Your task to perform on an android device: Toggle the flashlight Image 0: 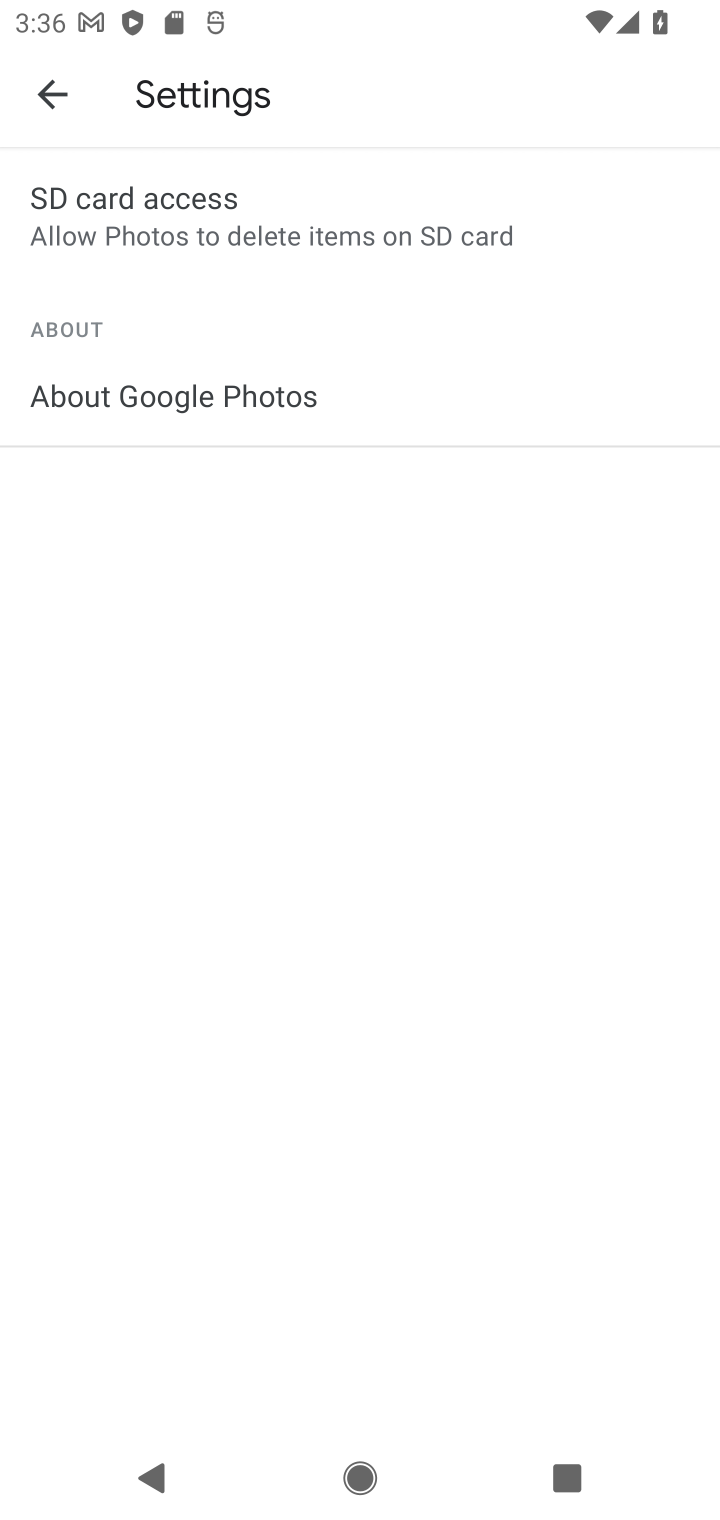
Step 0: press home button
Your task to perform on an android device: Toggle the flashlight Image 1: 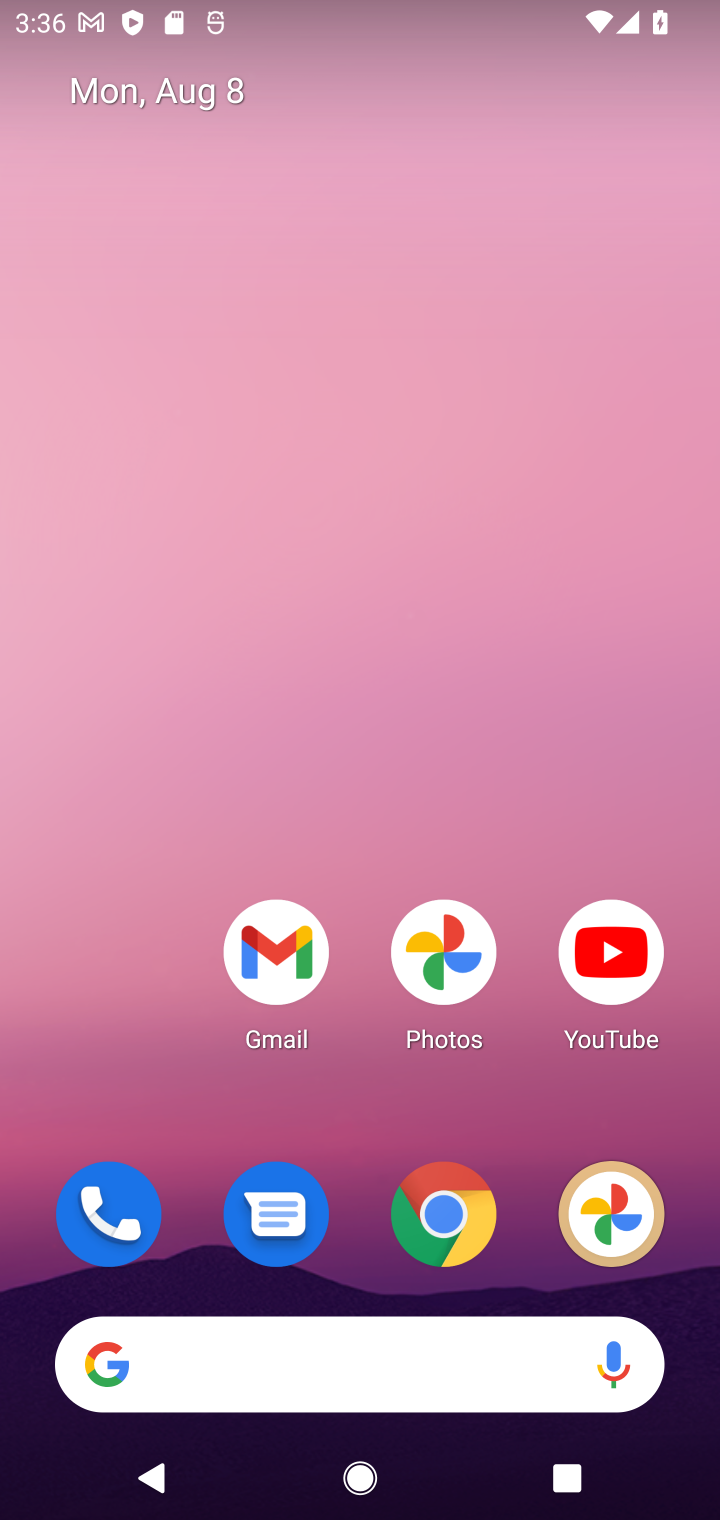
Step 1: drag from (379, 1273) to (490, 48)
Your task to perform on an android device: Toggle the flashlight Image 2: 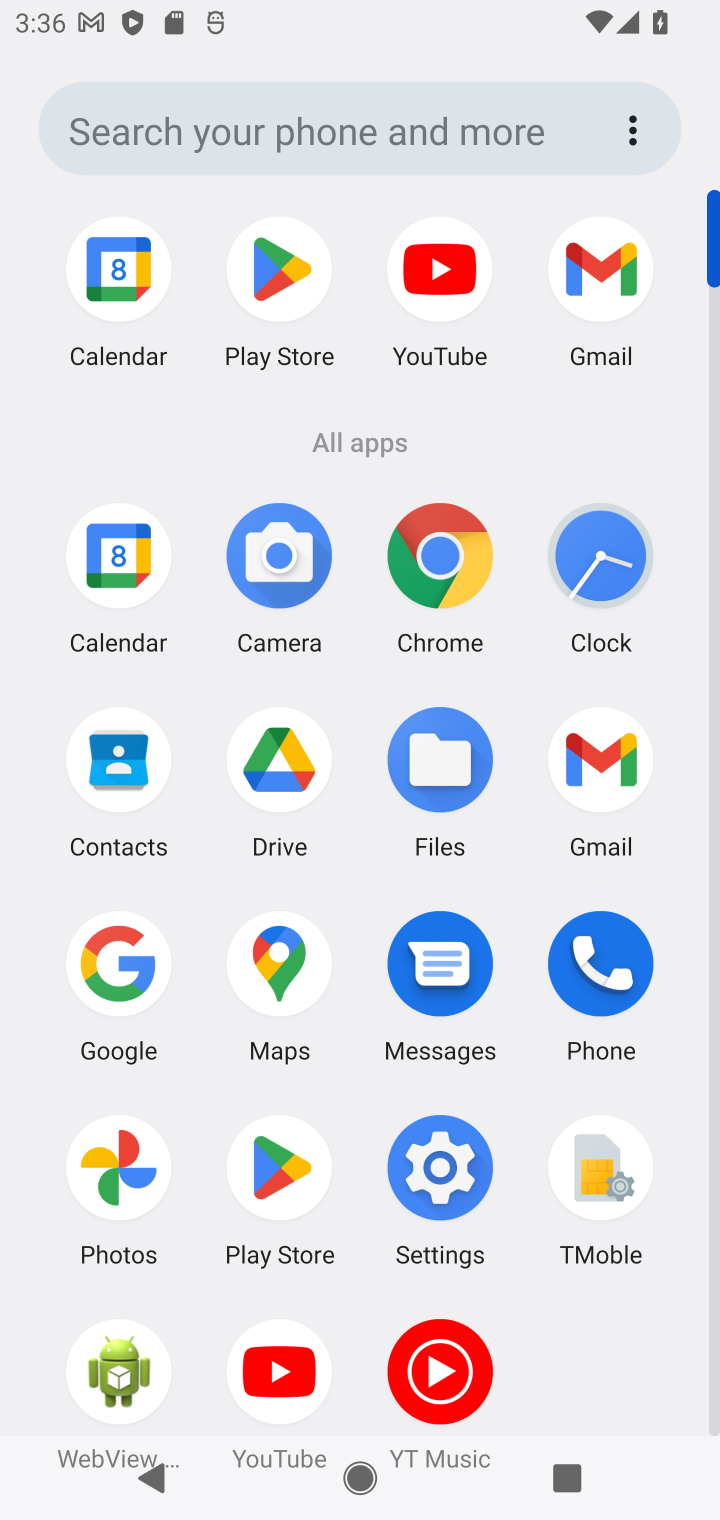
Step 2: click (436, 1154)
Your task to perform on an android device: Toggle the flashlight Image 3: 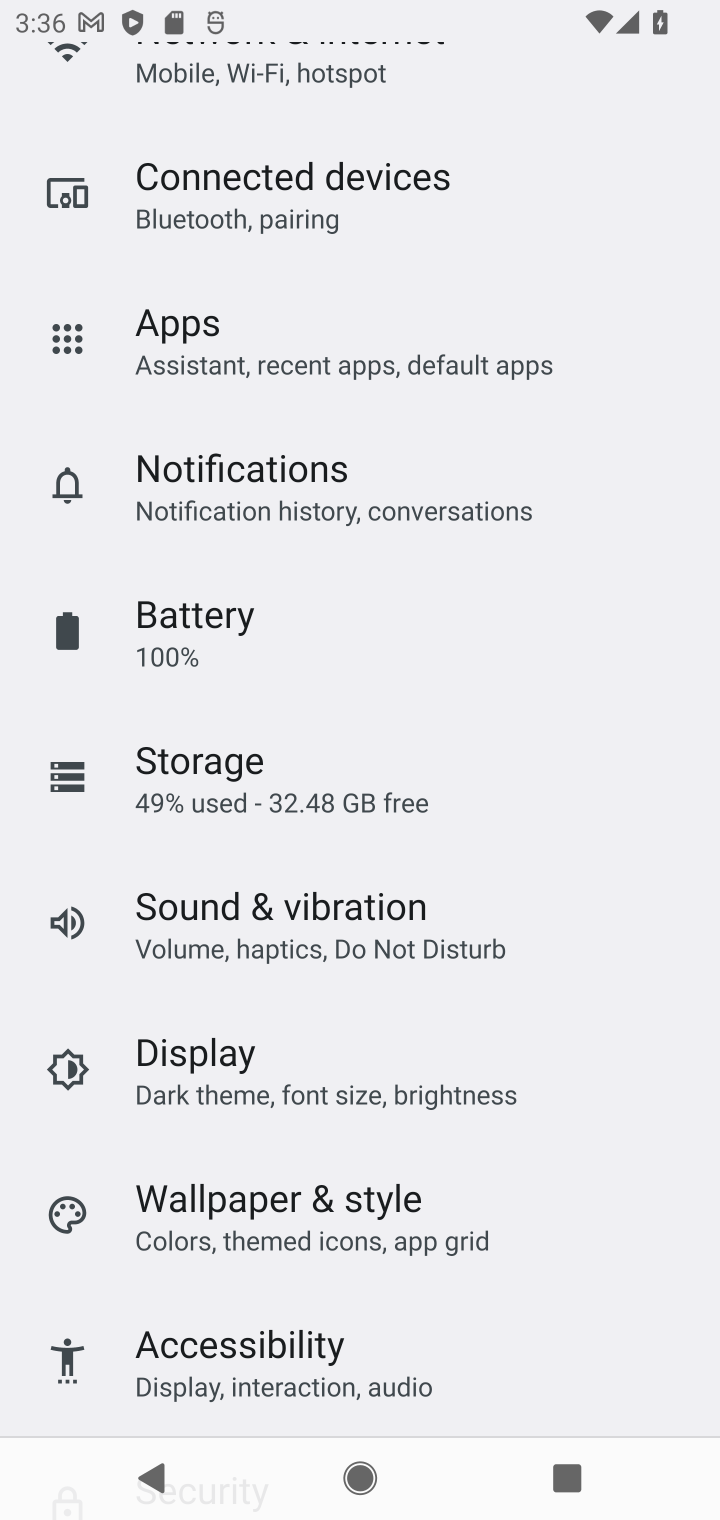
Step 3: drag from (246, 1271) to (240, 935)
Your task to perform on an android device: Toggle the flashlight Image 4: 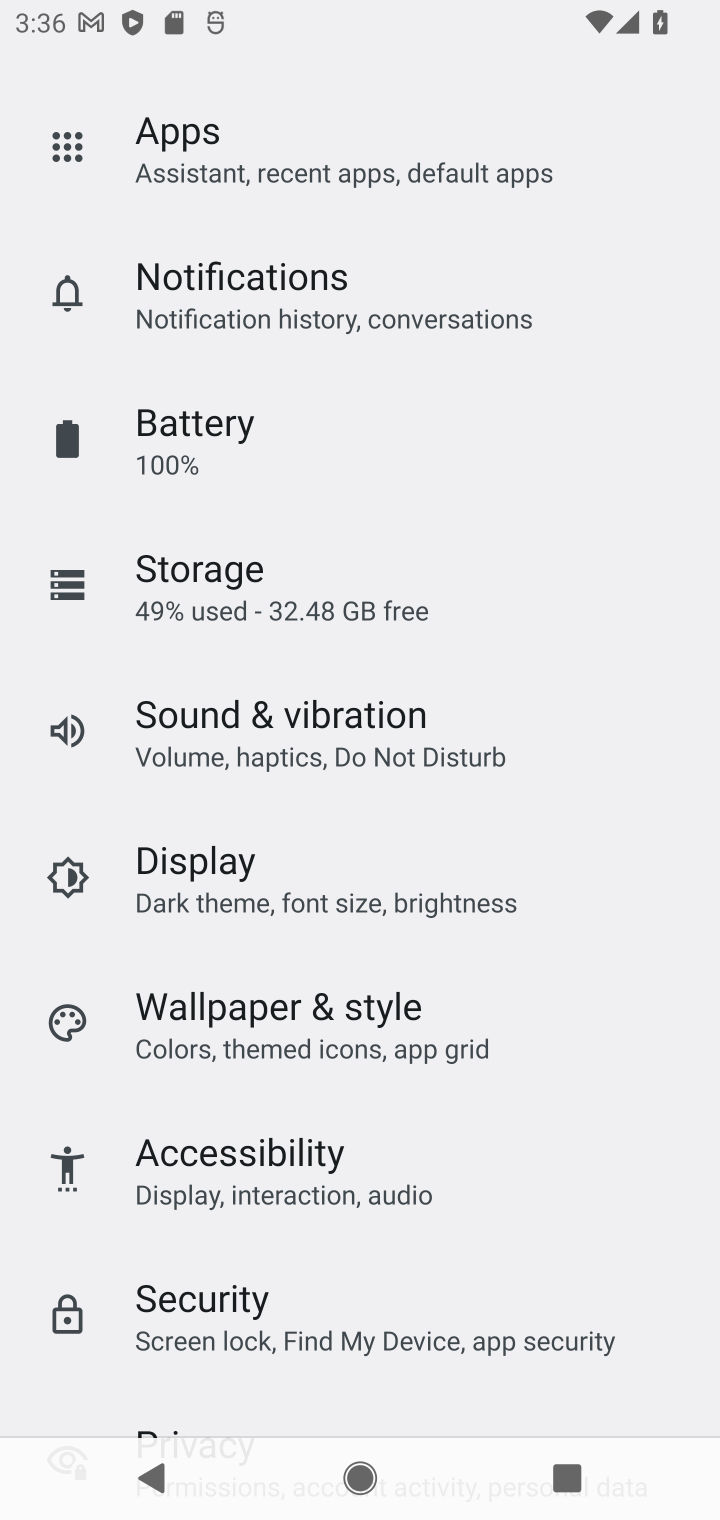
Step 4: drag from (351, 1284) to (372, 682)
Your task to perform on an android device: Toggle the flashlight Image 5: 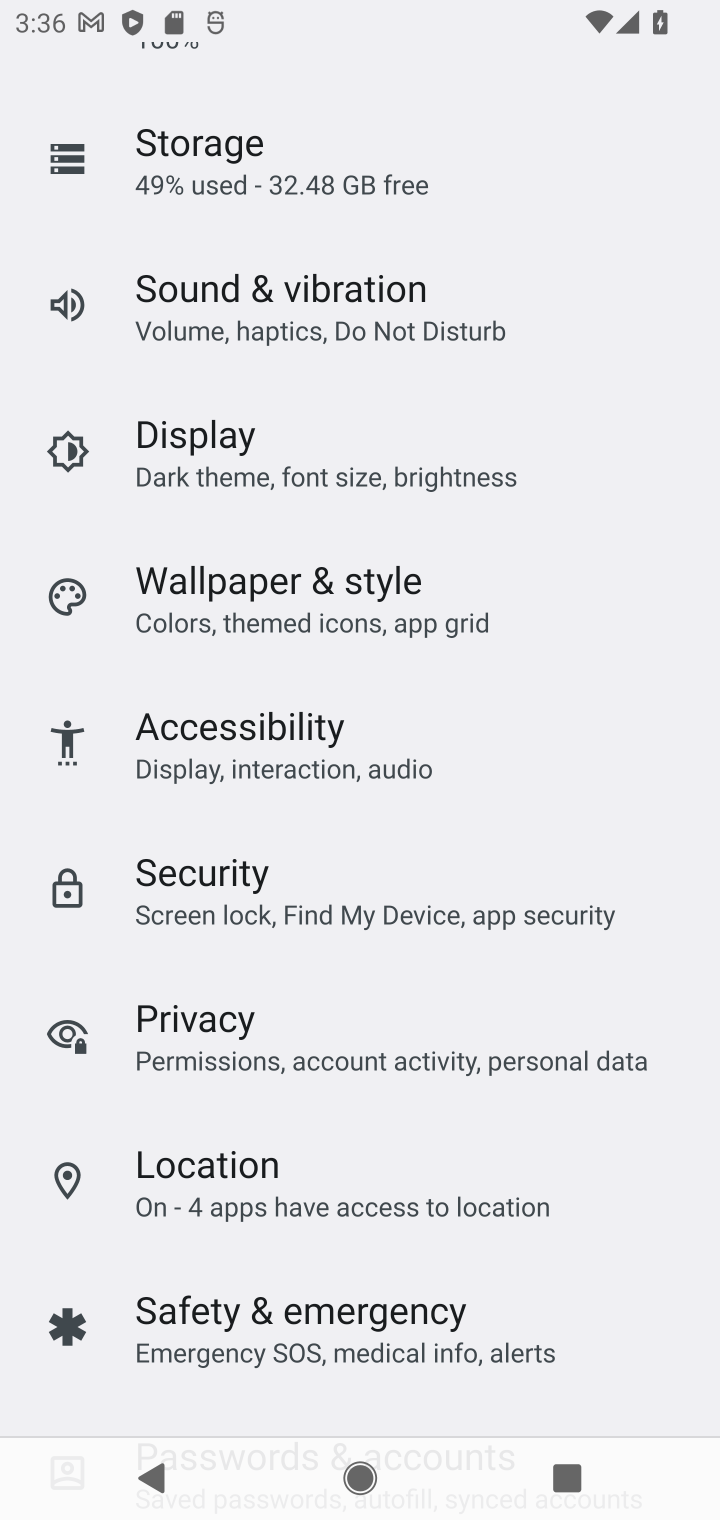
Step 5: drag from (356, 1315) to (342, 789)
Your task to perform on an android device: Toggle the flashlight Image 6: 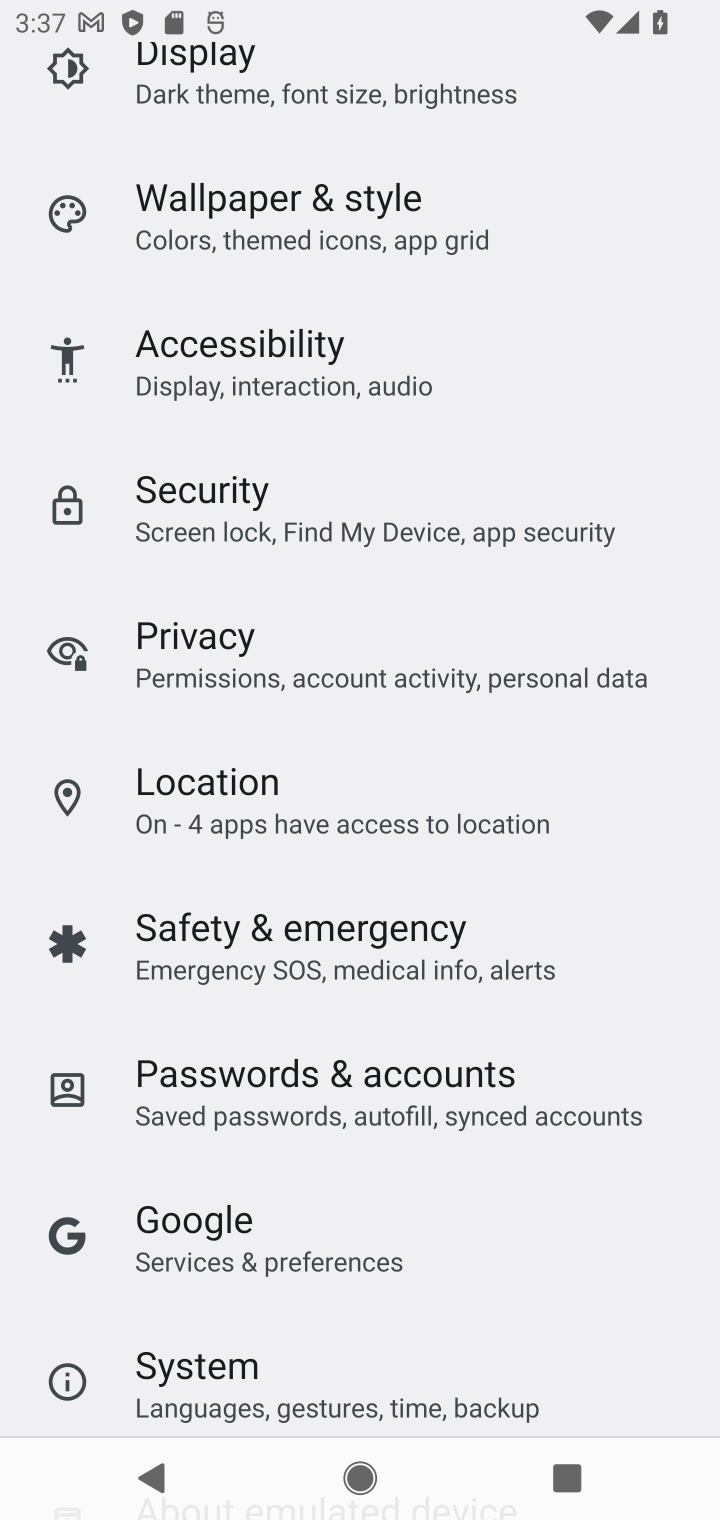
Step 6: drag from (277, 1265) to (277, 354)
Your task to perform on an android device: Toggle the flashlight Image 7: 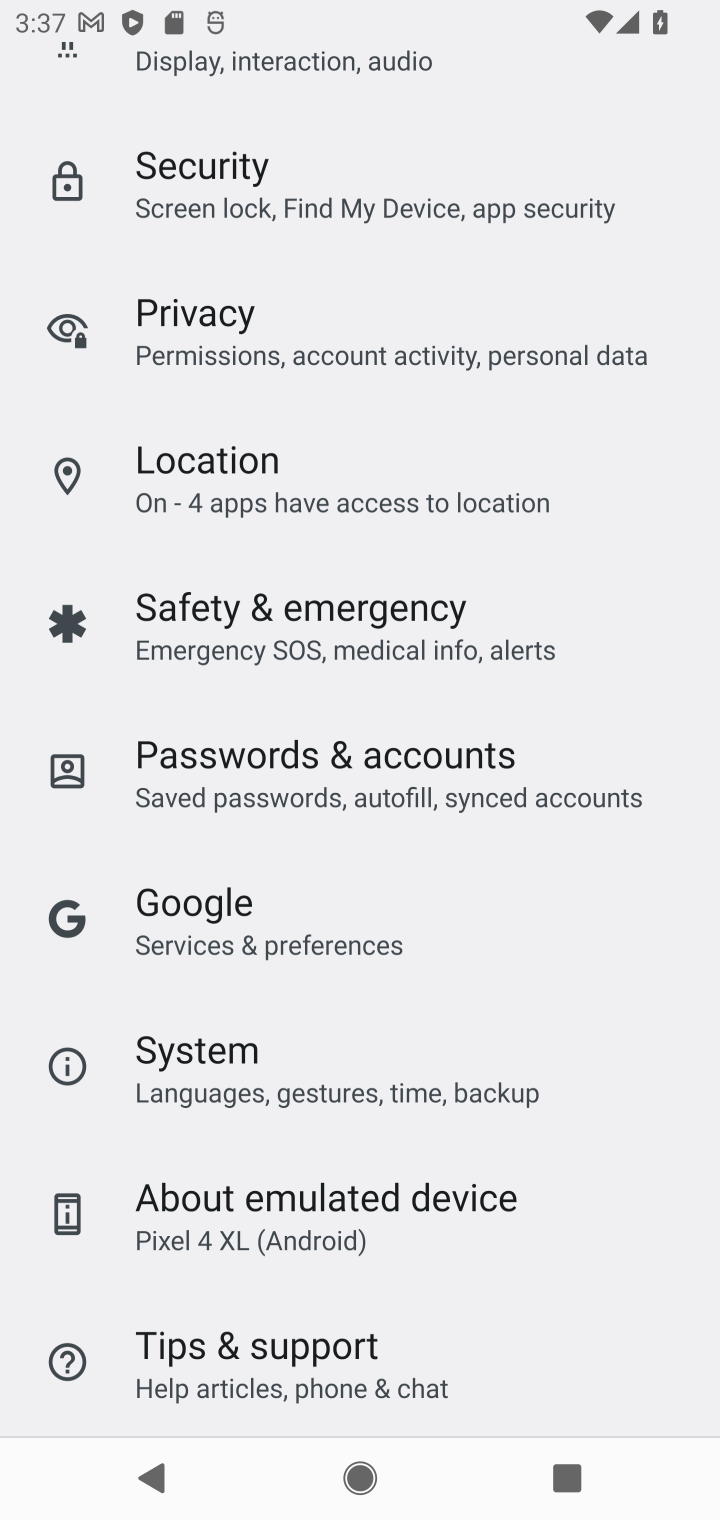
Step 7: click (204, 573)
Your task to perform on an android device: Toggle the flashlight Image 8: 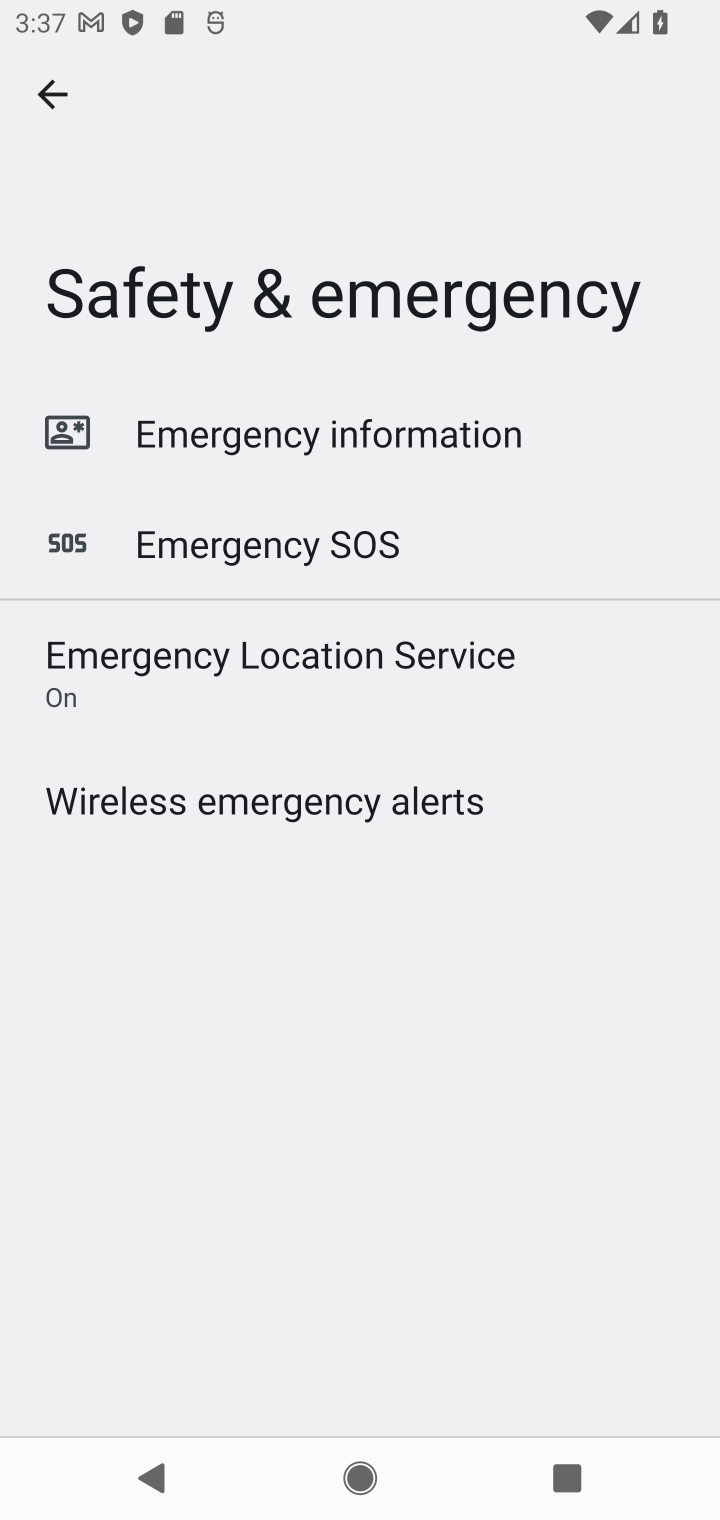
Step 8: click (52, 99)
Your task to perform on an android device: Toggle the flashlight Image 9: 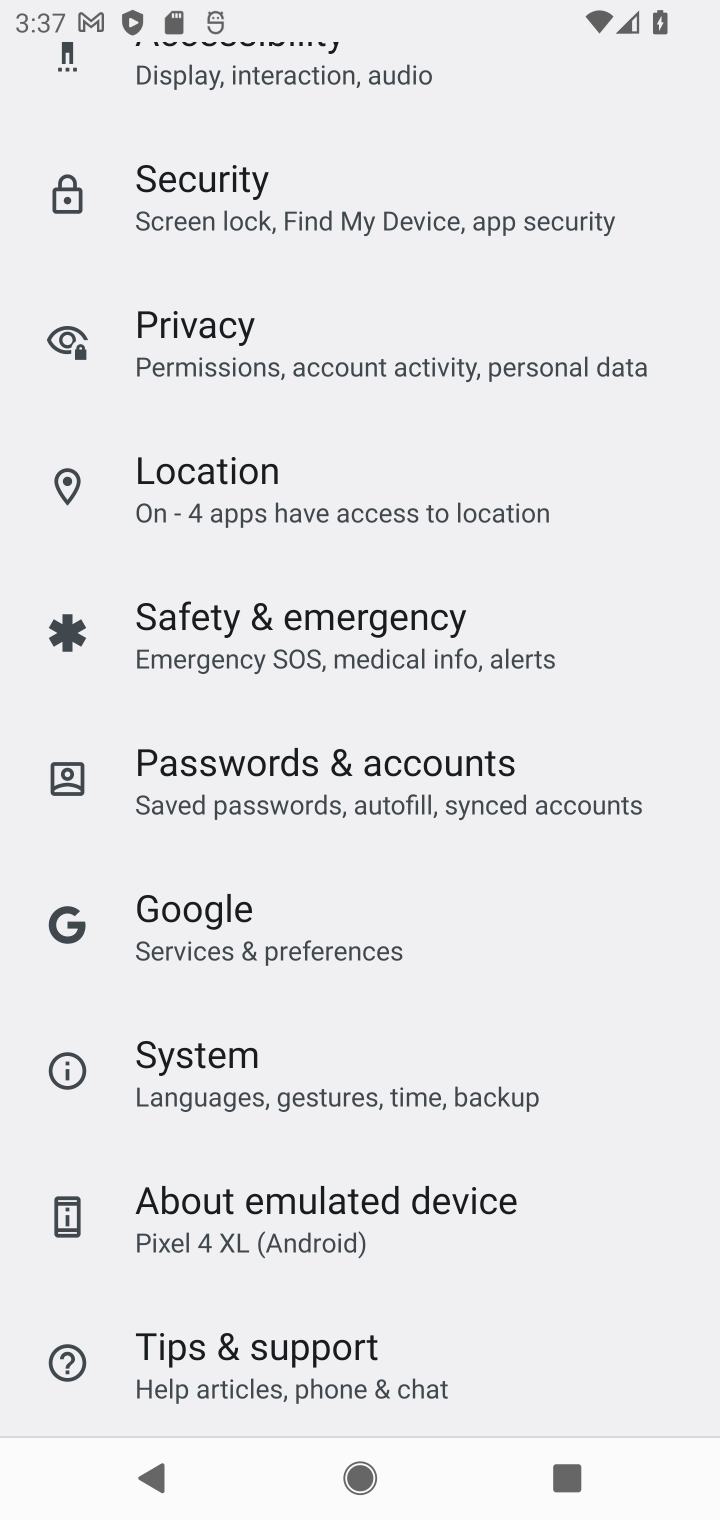
Step 9: task complete